Your task to perform on an android device: Check the weather Image 0: 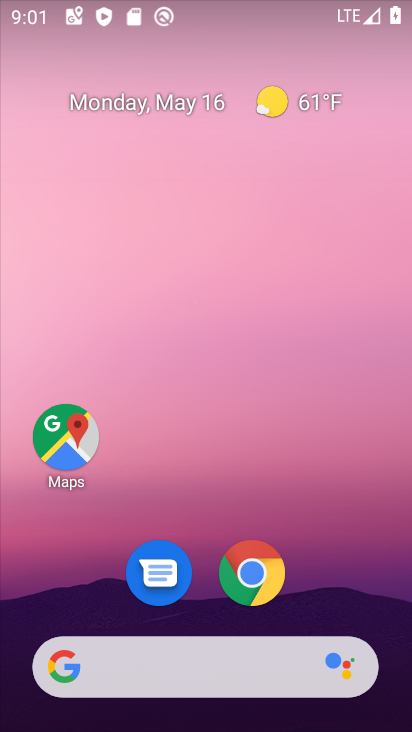
Step 0: click (273, 99)
Your task to perform on an android device: Check the weather Image 1: 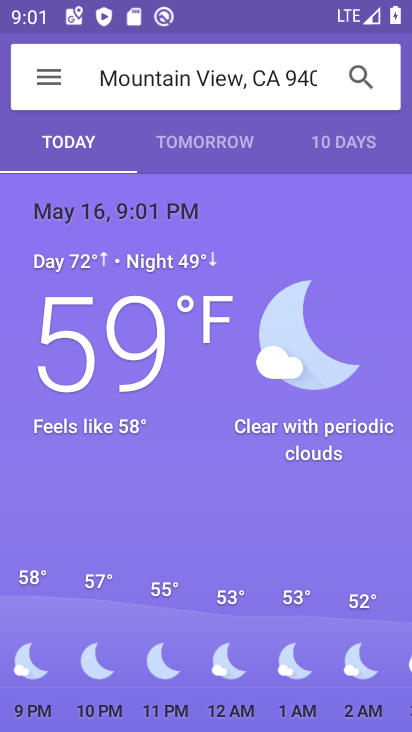
Step 1: task complete